Your task to perform on an android device: What's the weather? Image 0: 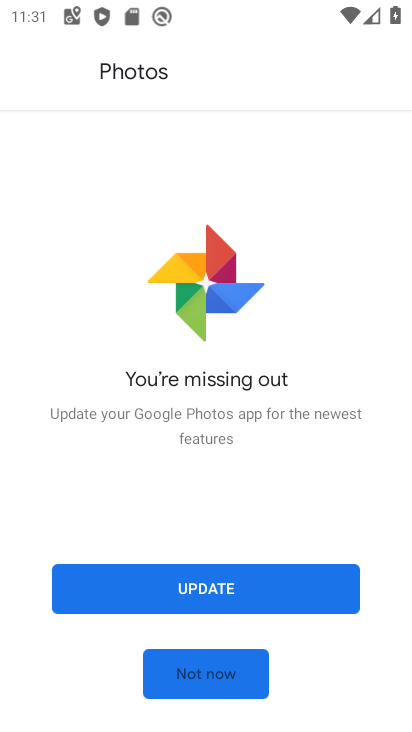
Step 0: press home button
Your task to perform on an android device: What's the weather? Image 1: 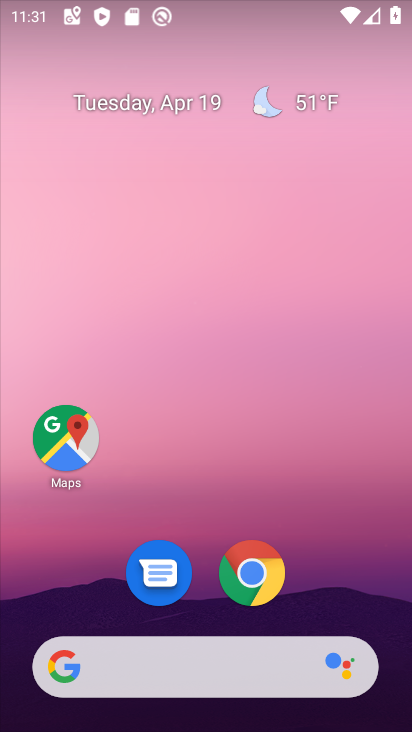
Step 1: drag from (307, 586) to (276, 226)
Your task to perform on an android device: What's the weather? Image 2: 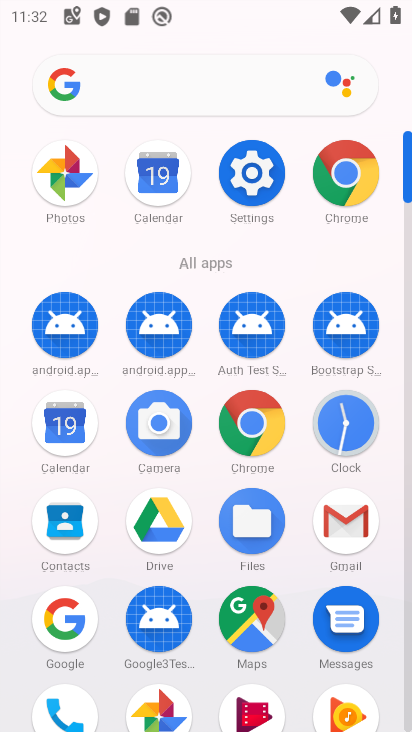
Step 2: click (334, 198)
Your task to perform on an android device: What's the weather? Image 3: 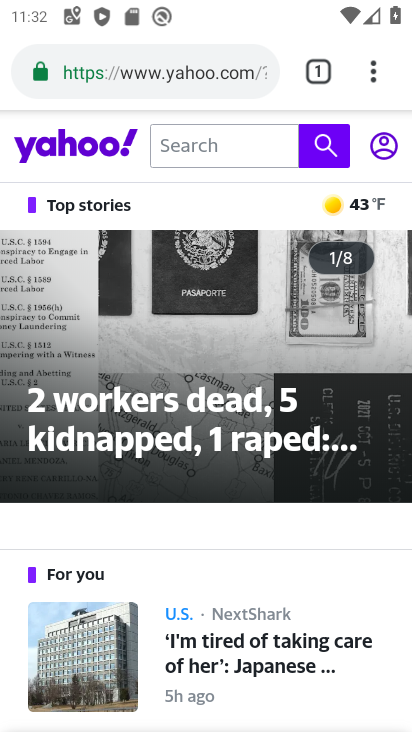
Step 3: click (139, 81)
Your task to perform on an android device: What's the weather? Image 4: 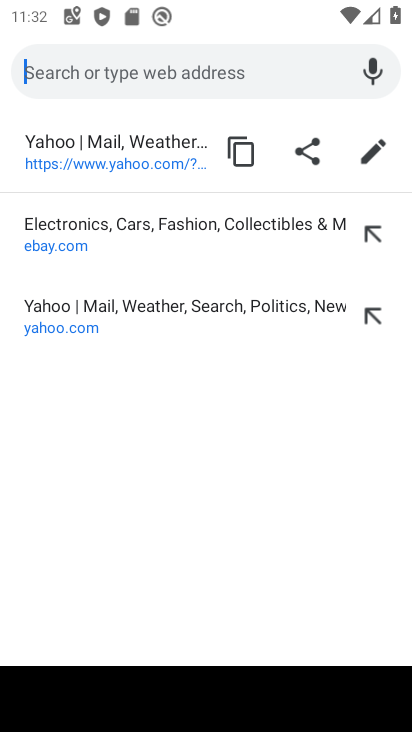
Step 4: type "what's the weather"
Your task to perform on an android device: What's the weather? Image 5: 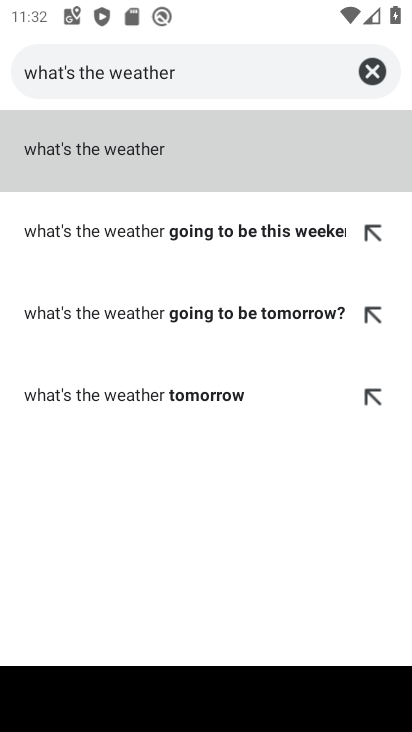
Step 5: click (109, 156)
Your task to perform on an android device: What's the weather? Image 6: 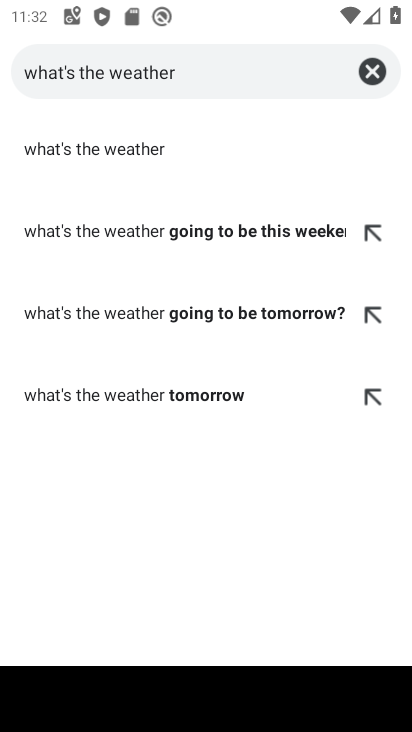
Step 6: click (165, 148)
Your task to perform on an android device: What's the weather? Image 7: 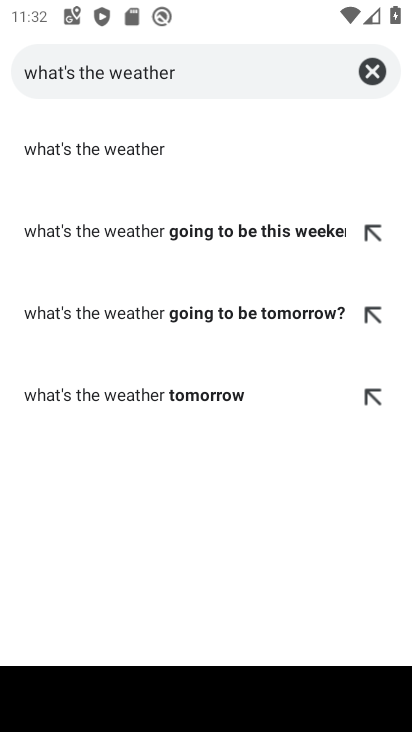
Step 7: click (160, 148)
Your task to perform on an android device: What's the weather? Image 8: 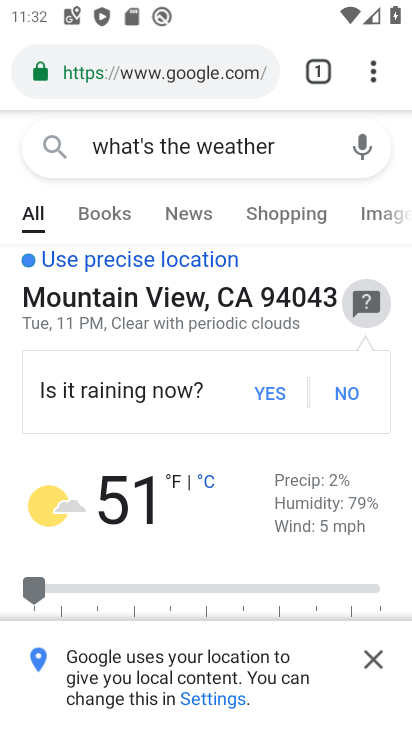
Step 8: task complete